Your task to perform on an android device: open app "The Home Depot" (install if not already installed) Image 0: 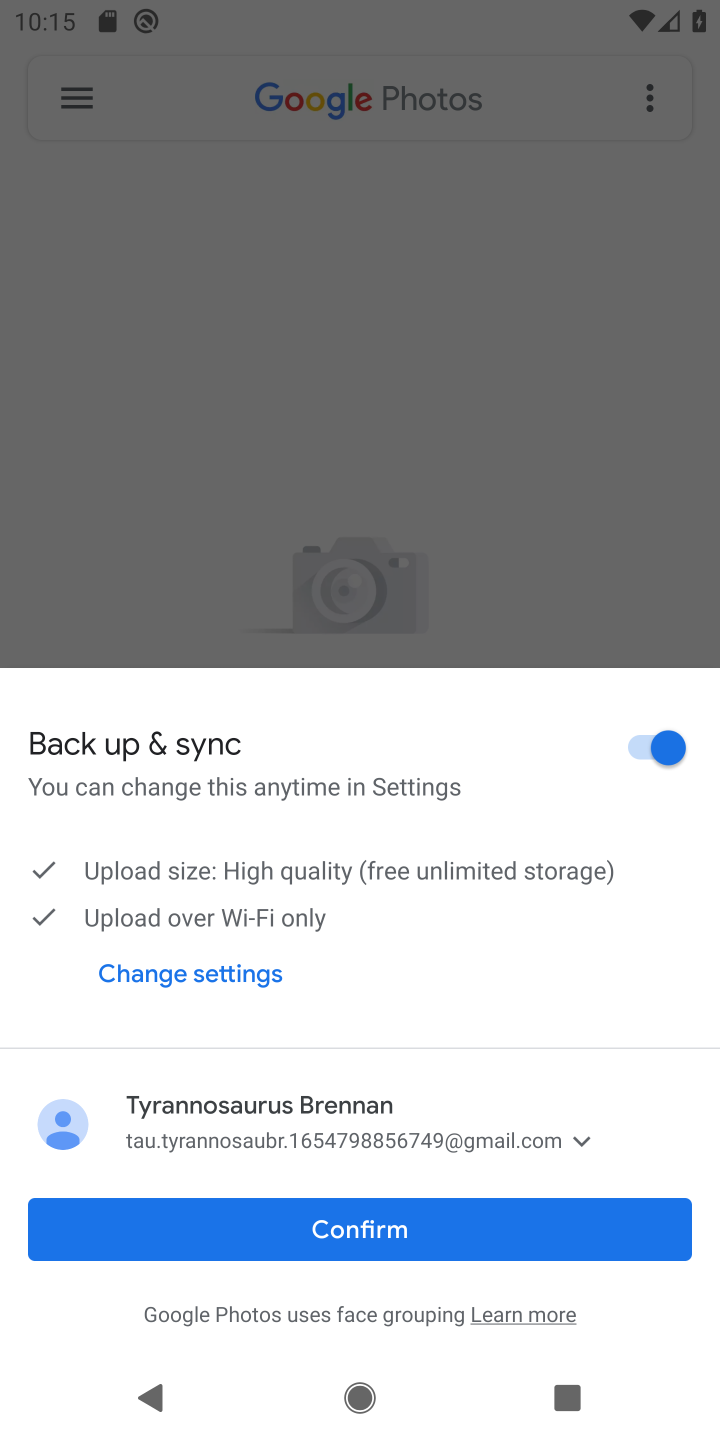
Step 0: press home button
Your task to perform on an android device: open app "The Home Depot" (install if not already installed) Image 1: 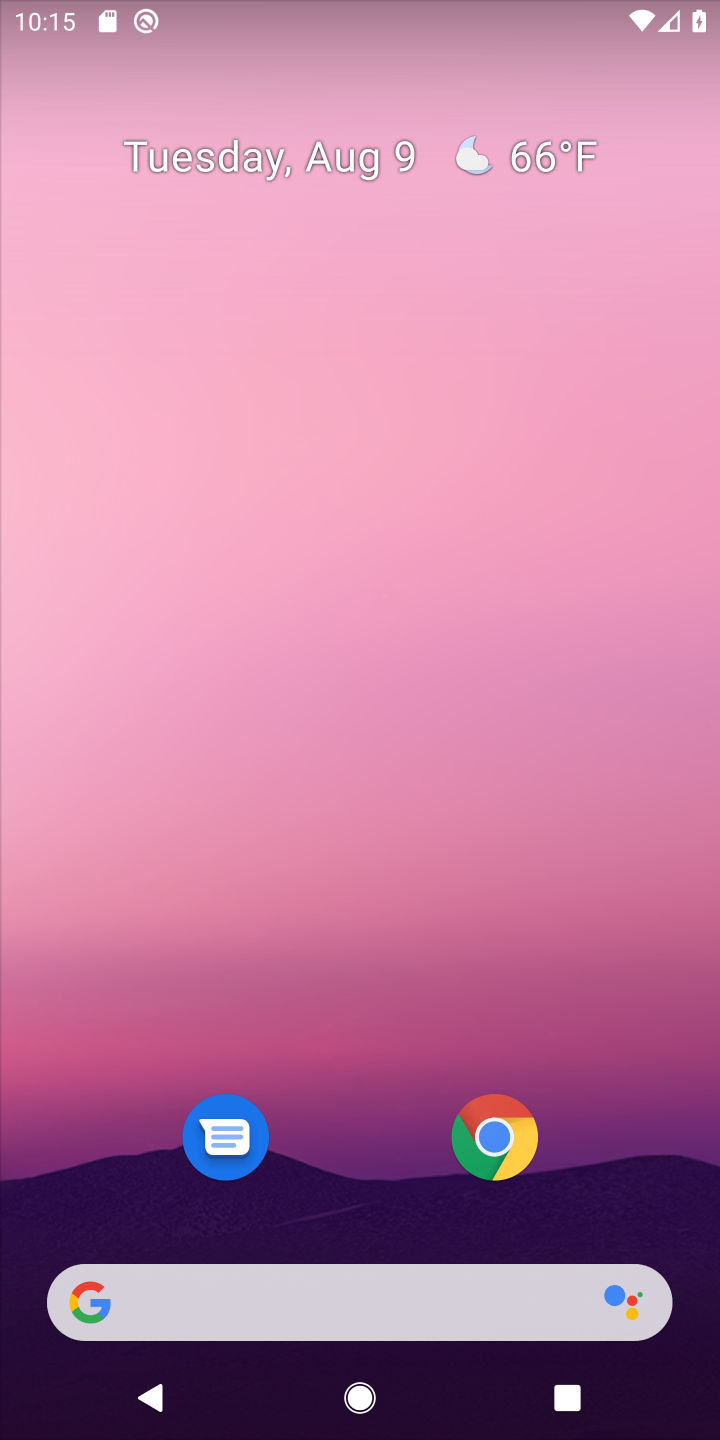
Step 1: drag from (407, 792) to (421, 318)
Your task to perform on an android device: open app "The Home Depot" (install if not already installed) Image 2: 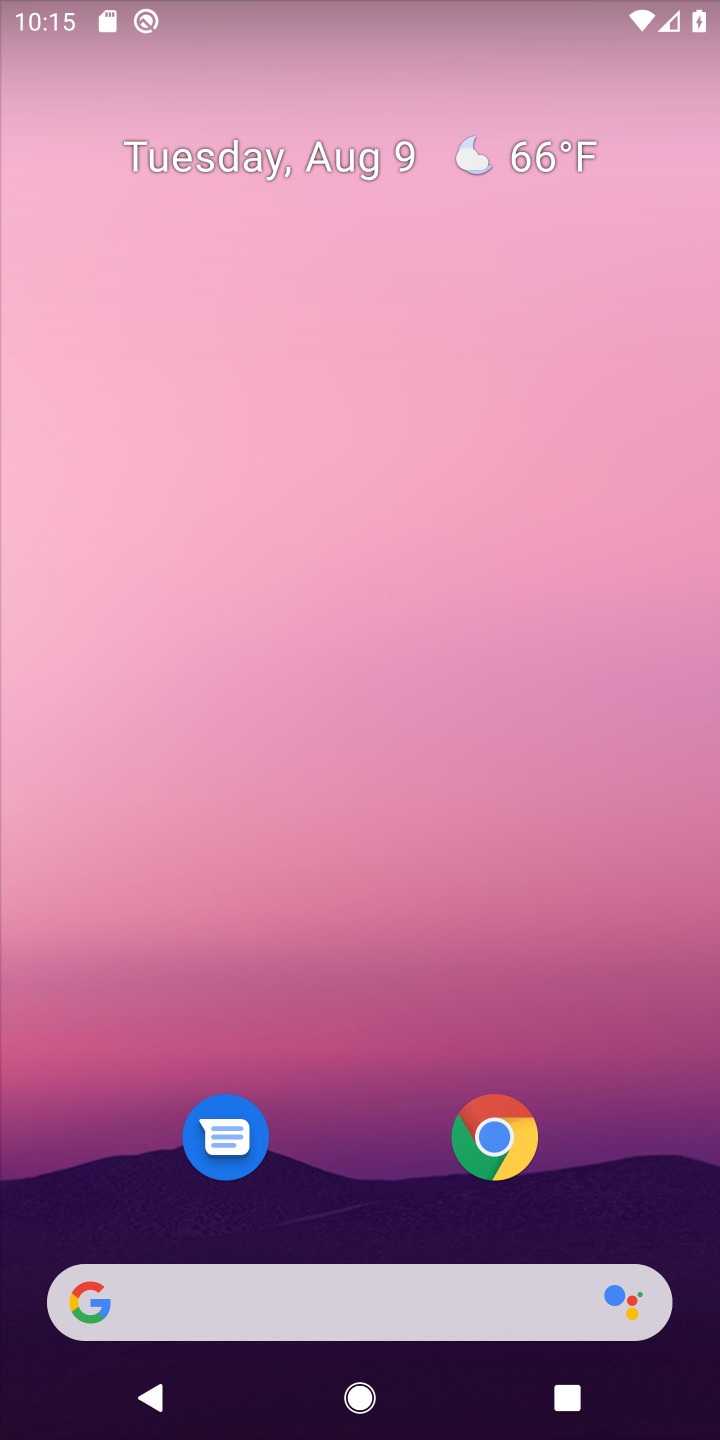
Step 2: drag from (342, 1199) to (350, 404)
Your task to perform on an android device: open app "The Home Depot" (install if not already installed) Image 3: 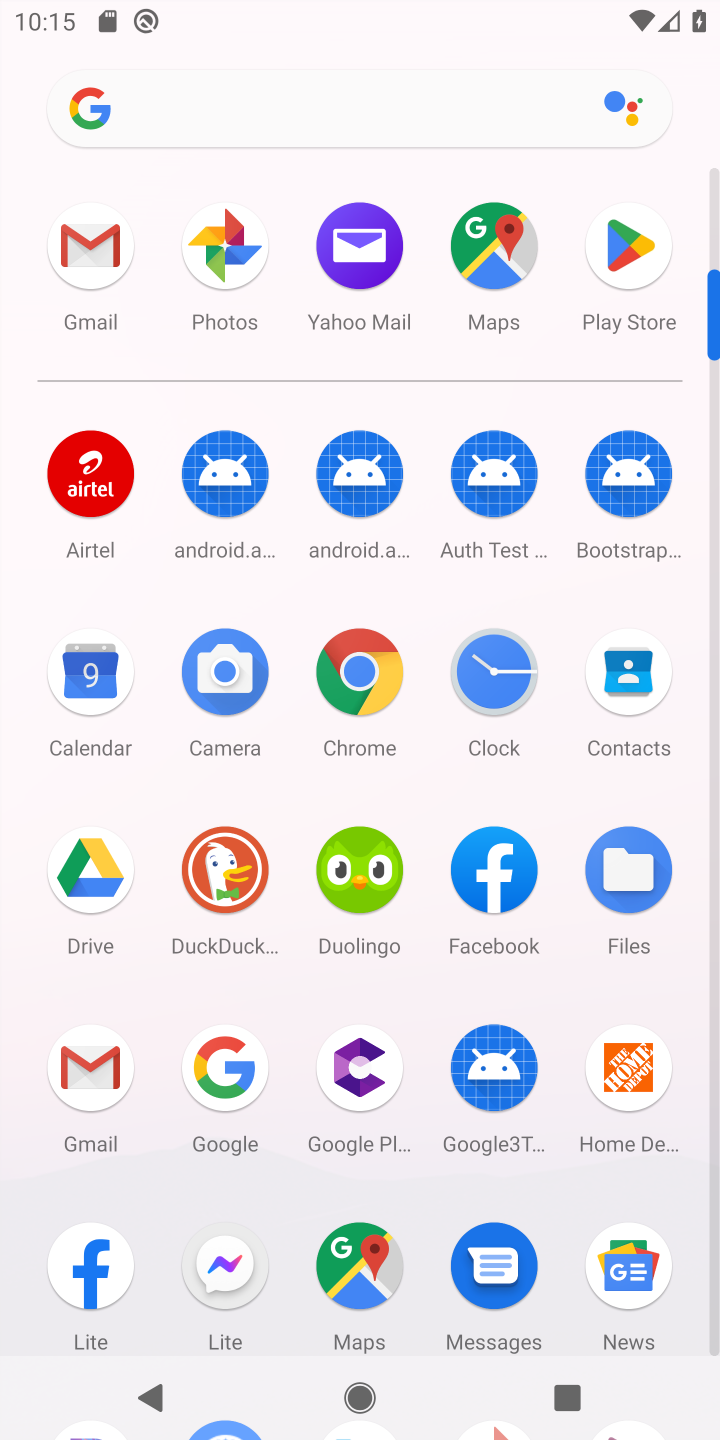
Step 3: click (610, 287)
Your task to perform on an android device: open app "The Home Depot" (install if not already installed) Image 4: 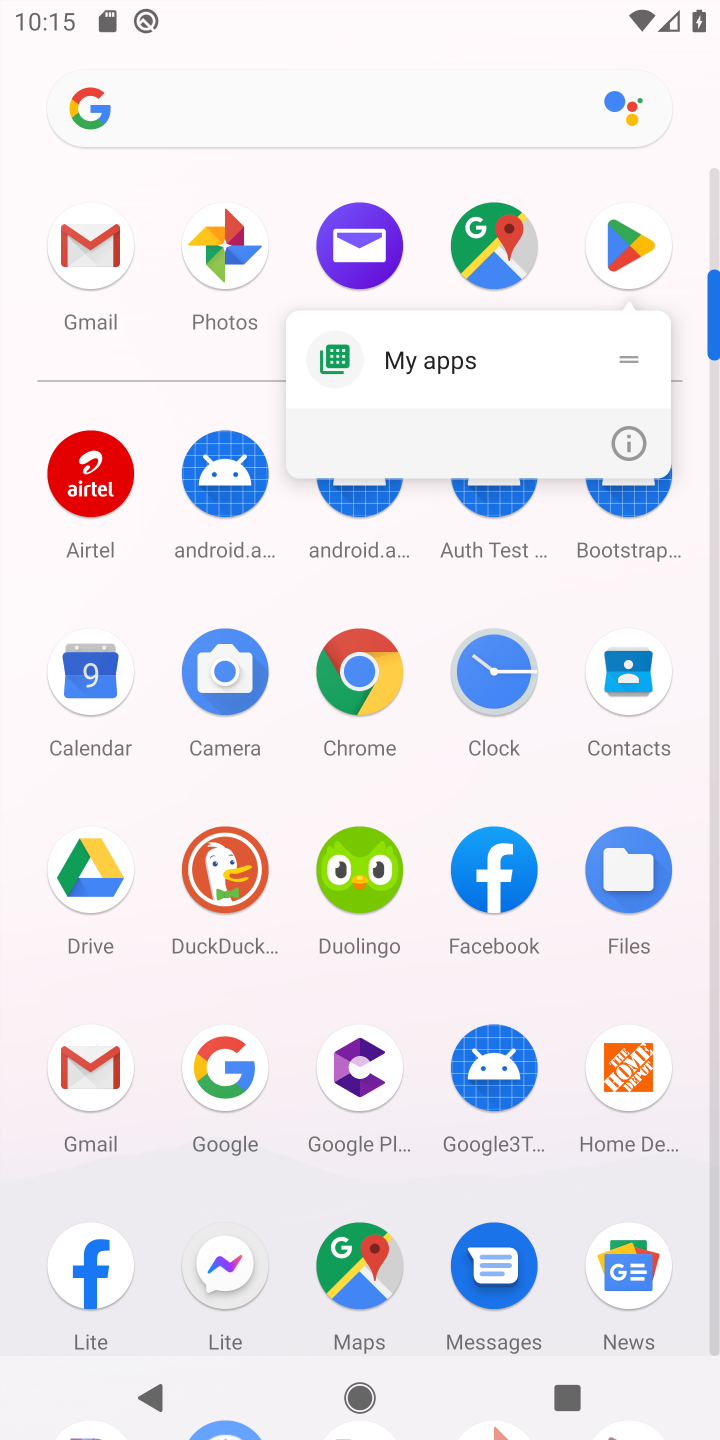
Step 4: click (635, 264)
Your task to perform on an android device: open app "The Home Depot" (install if not already installed) Image 5: 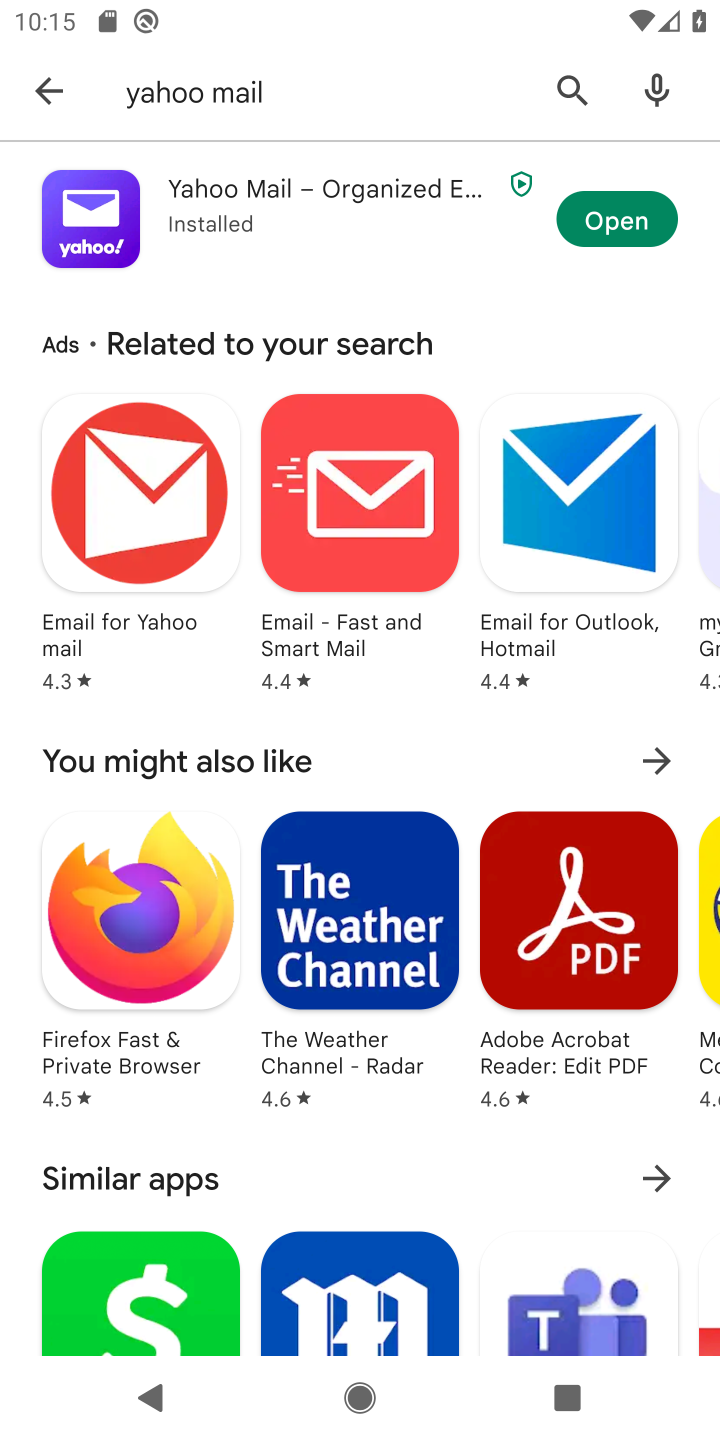
Step 5: click (576, 92)
Your task to perform on an android device: open app "The Home Depot" (install if not already installed) Image 6: 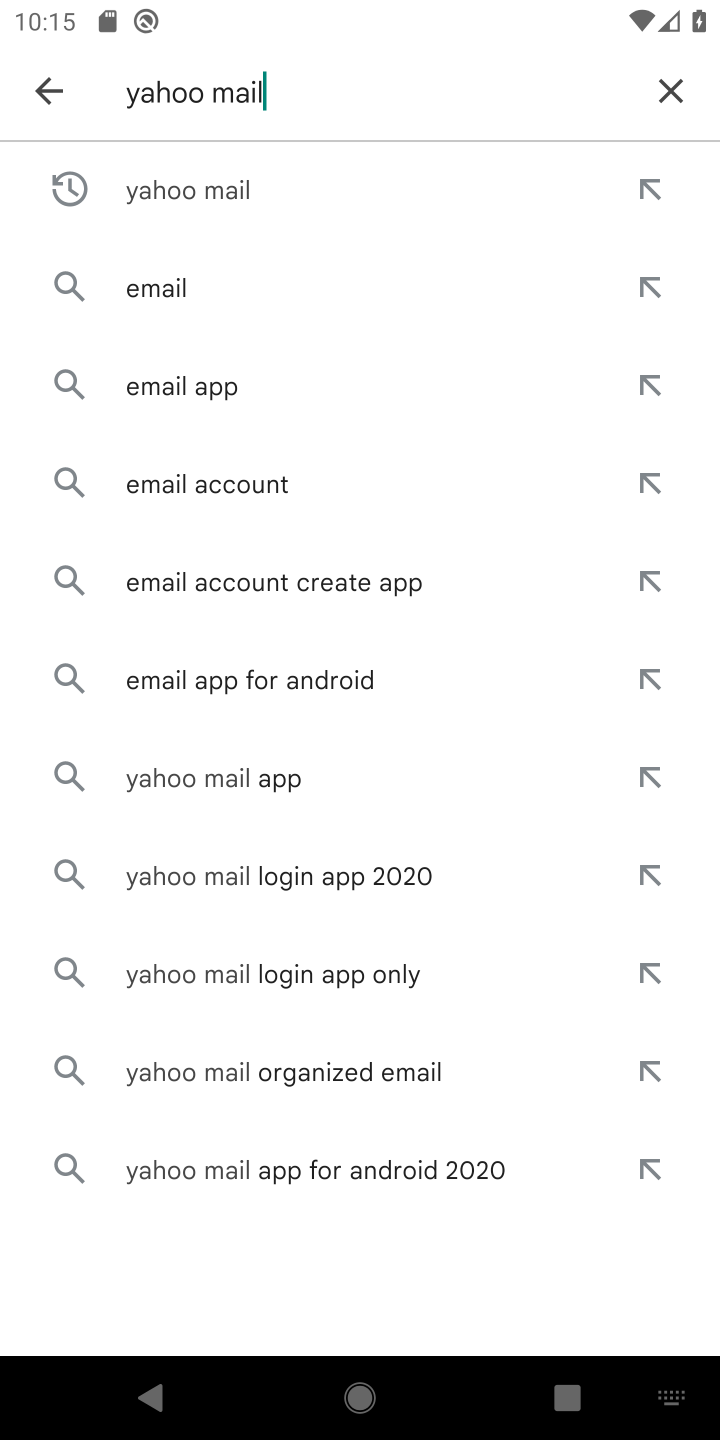
Step 6: click (675, 86)
Your task to perform on an android device: open app "The Home Depot" (install if not already installed) Image 7: 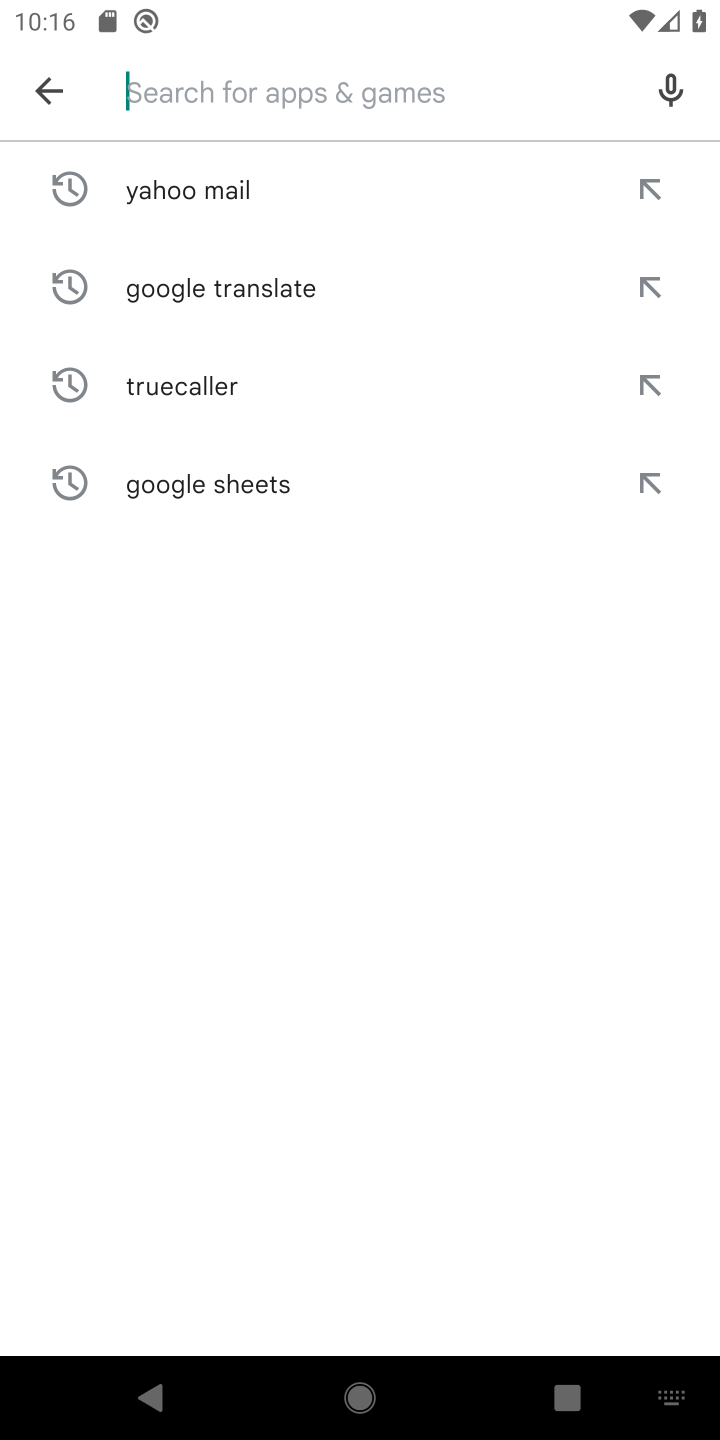
Step 7: type "The Home Depot"
Your task to perform on an android device: open app "The Home Depot" (install if not already installed) Image 8: 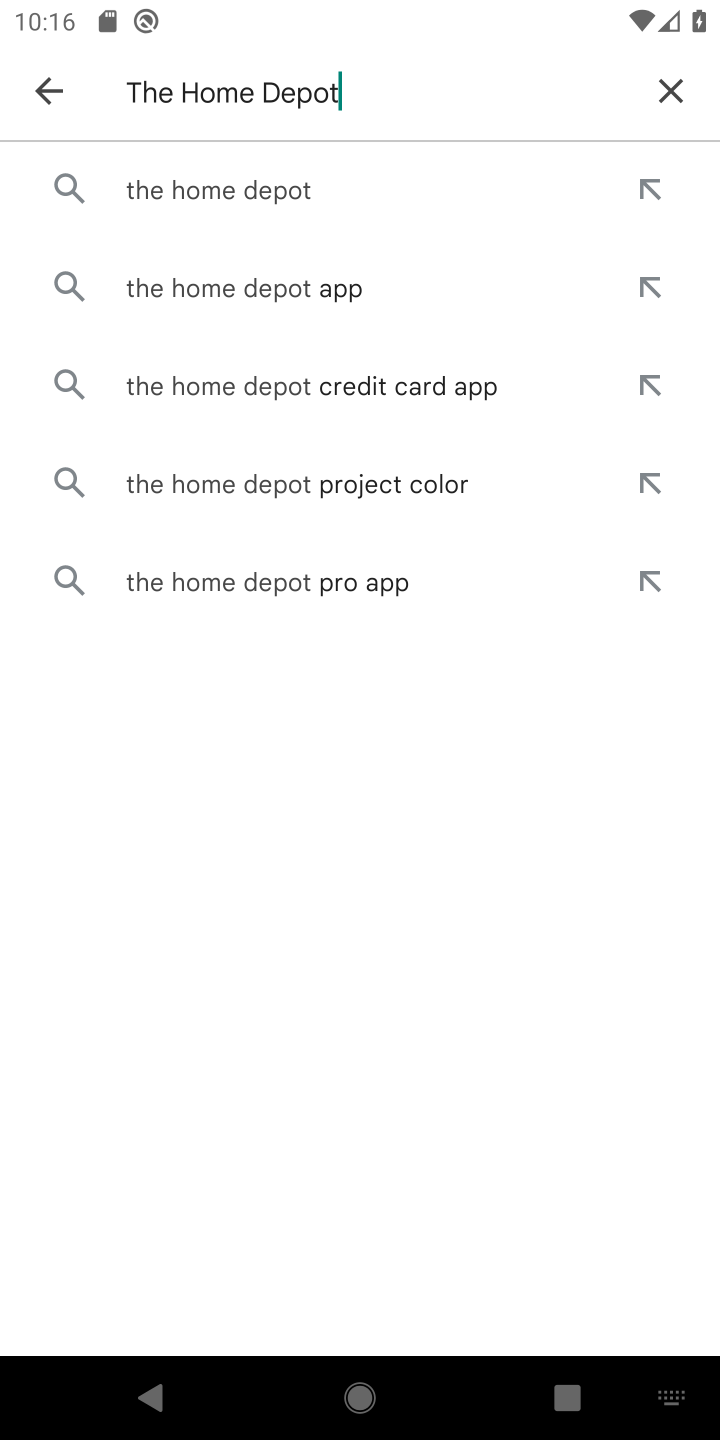
Step 8: click (276, 182)
Your task to perform on an android device: open app "The Home Depot" (install if not already installed) Image 9: 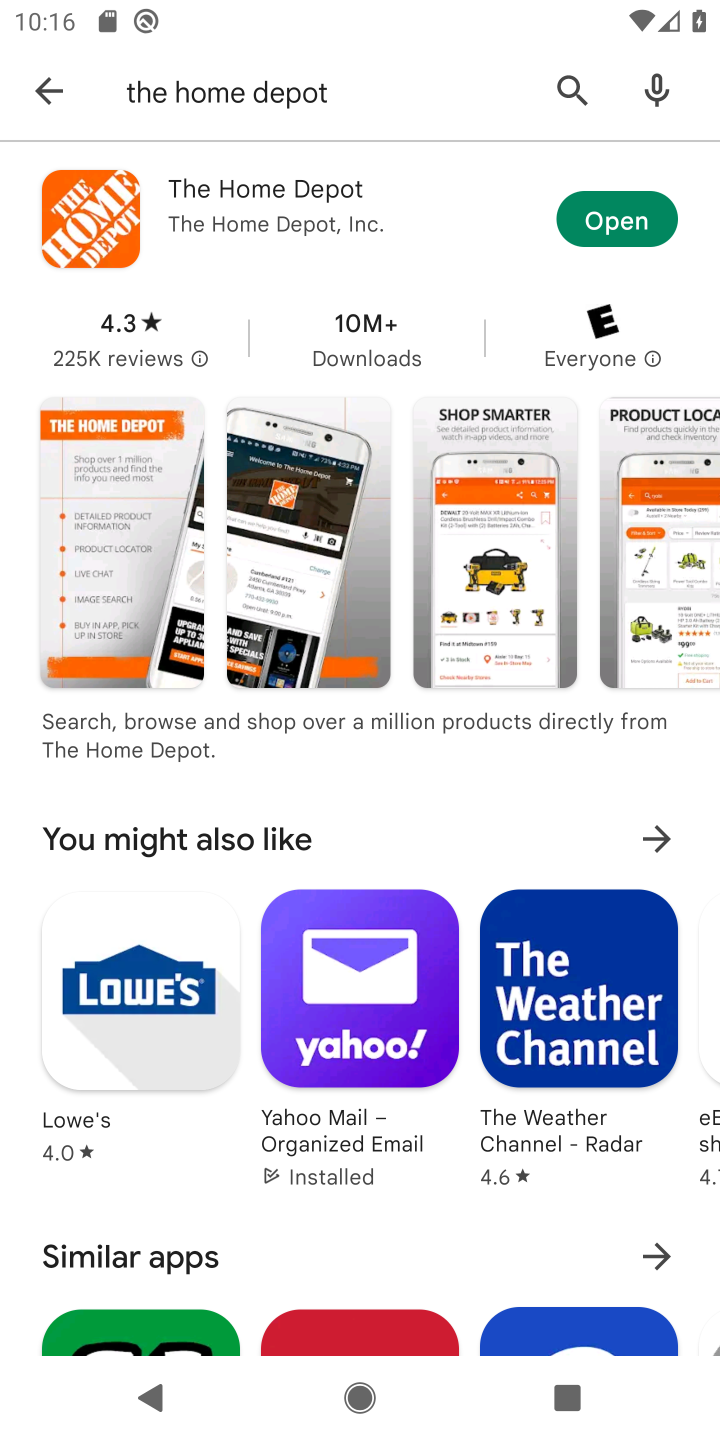
Step 9: click (592, 207)
Your task to perform on an android device: open app "The Home Depot" (install if not already installed) Image 10: 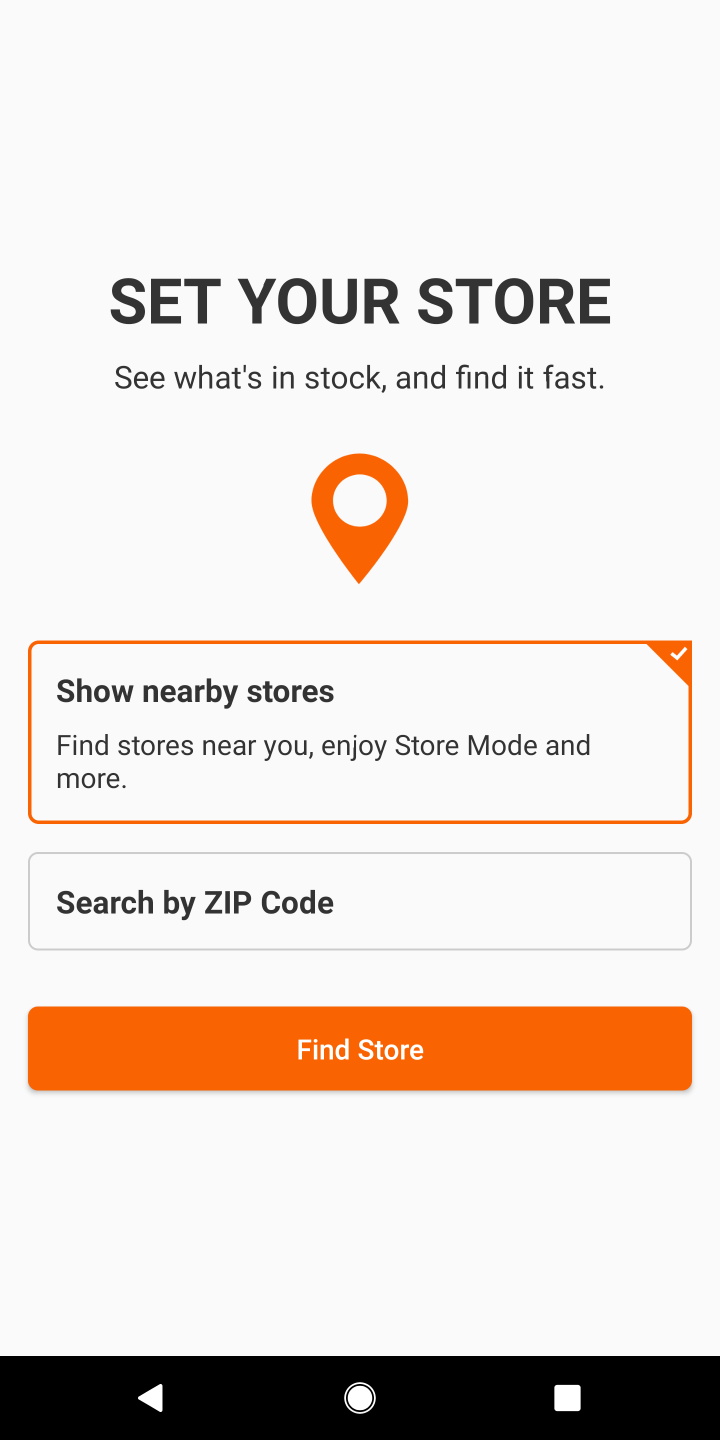
Step 10: task complete